Your task to perform on an android device: allow notifications from all sites in the chrome app Image 0: 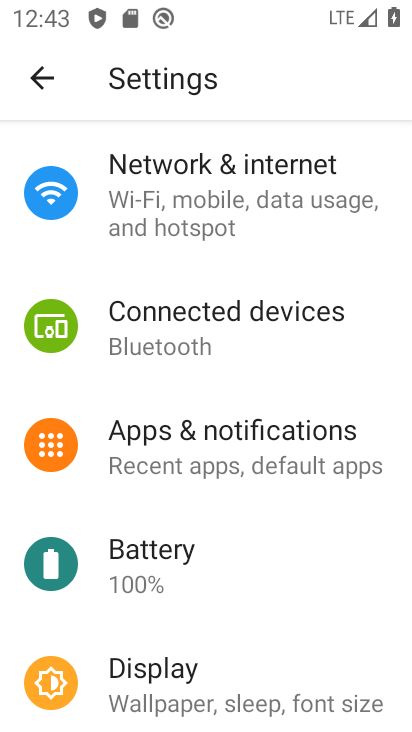
Step 0: press back button
Your task to perform on an android device: allow notifications from all sites in the chrome app Image 1: 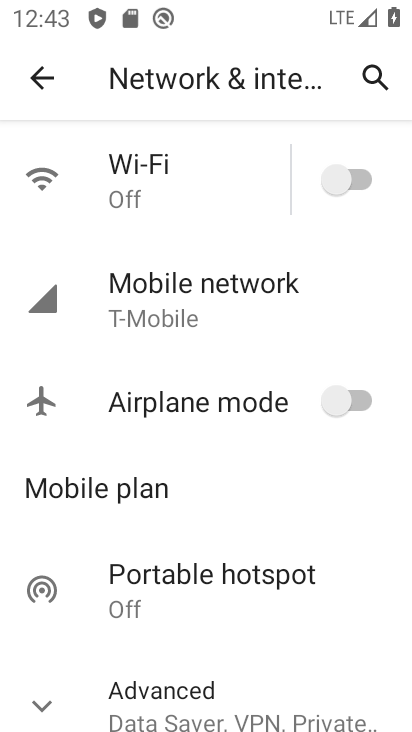
Step 1: press back button
Your task to perform on an android device: allow notifications from all sites in the chrome app Image 2: 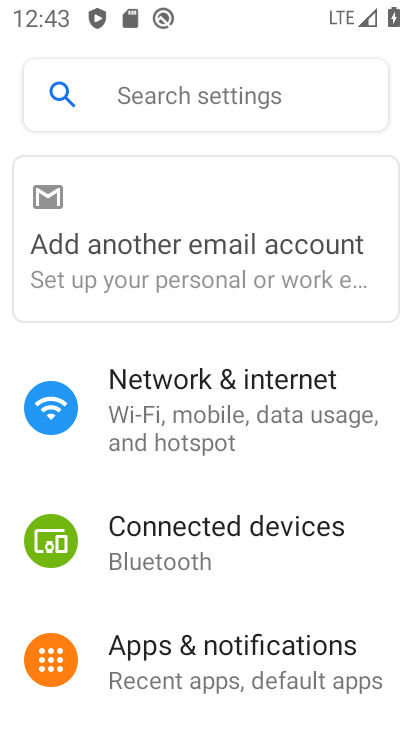
Step 2: press back button
Your task to perform on an android device: allow notifications from all sites in the chrome app Image 3: 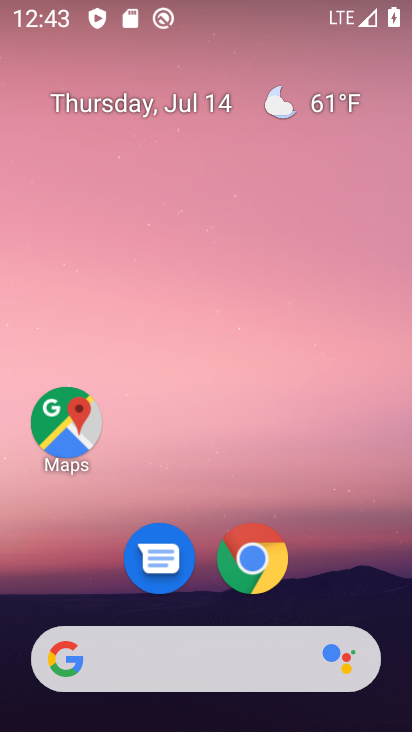
Step 3: click (256, 561)
Your task to perform on an android device: allow notifications from all sites in the chrome app Image 4: 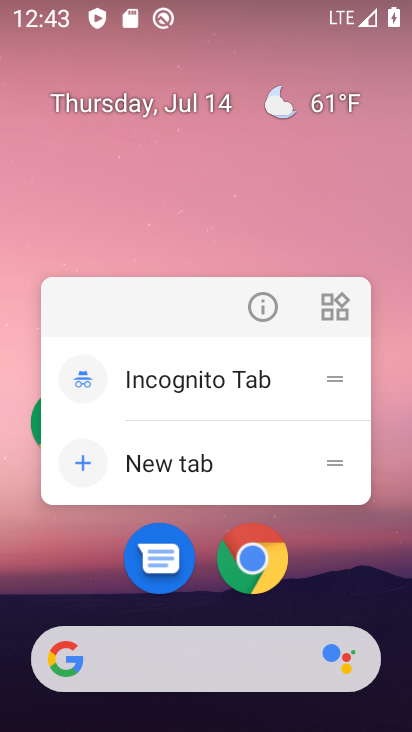
Step 4: click (260, 558)
Your task to perform on an android device: allow notifications from all sites in the chrome app Image 5: 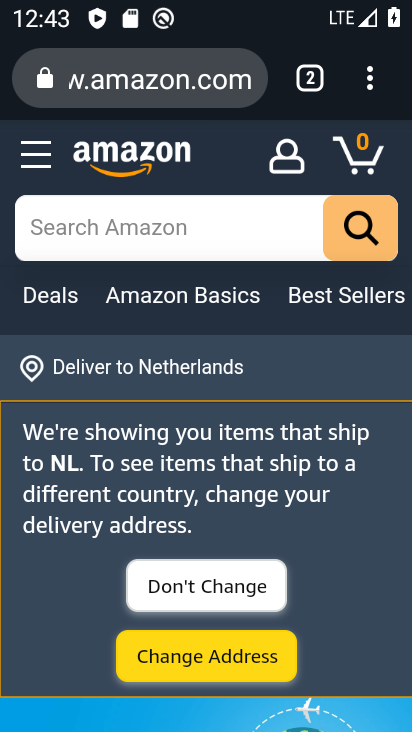
Step 5: drag from (370, 73) to (117, 602)
Your task to perform on an android device: allow notifications from all sites in the chrome app Image 6: 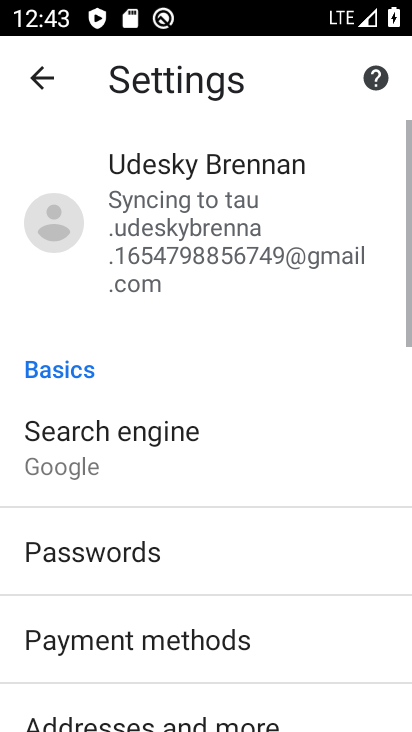
Step 6: drag from (135, 659) to (254, 133)
Your task to perform on an android device: allow notifications from all sites in the chrome app Image 7: 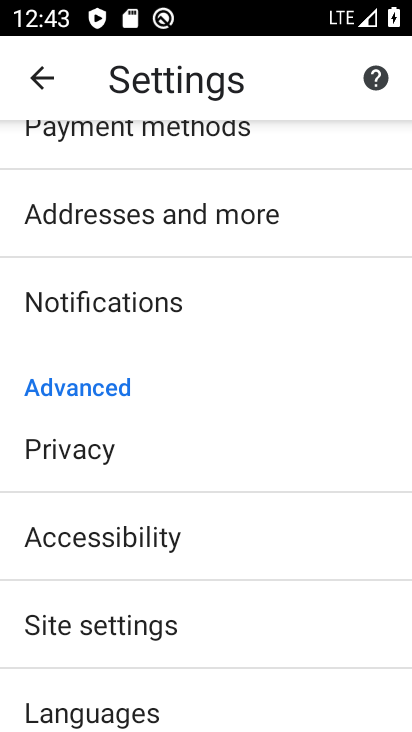
Step 7: click (82, 310)
Your task to perform on an android device: allow notifications from all sites in the chrome app Image 8: 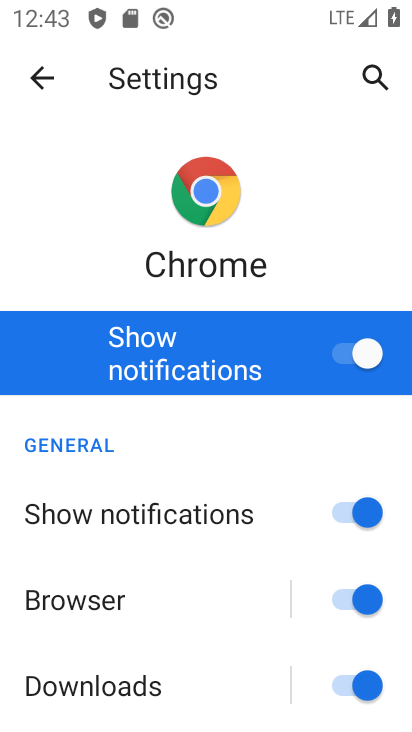
Step 8: task complete